Your task to perform on an android device: open app "Google Calendar" (install if not already installed) Image 0: 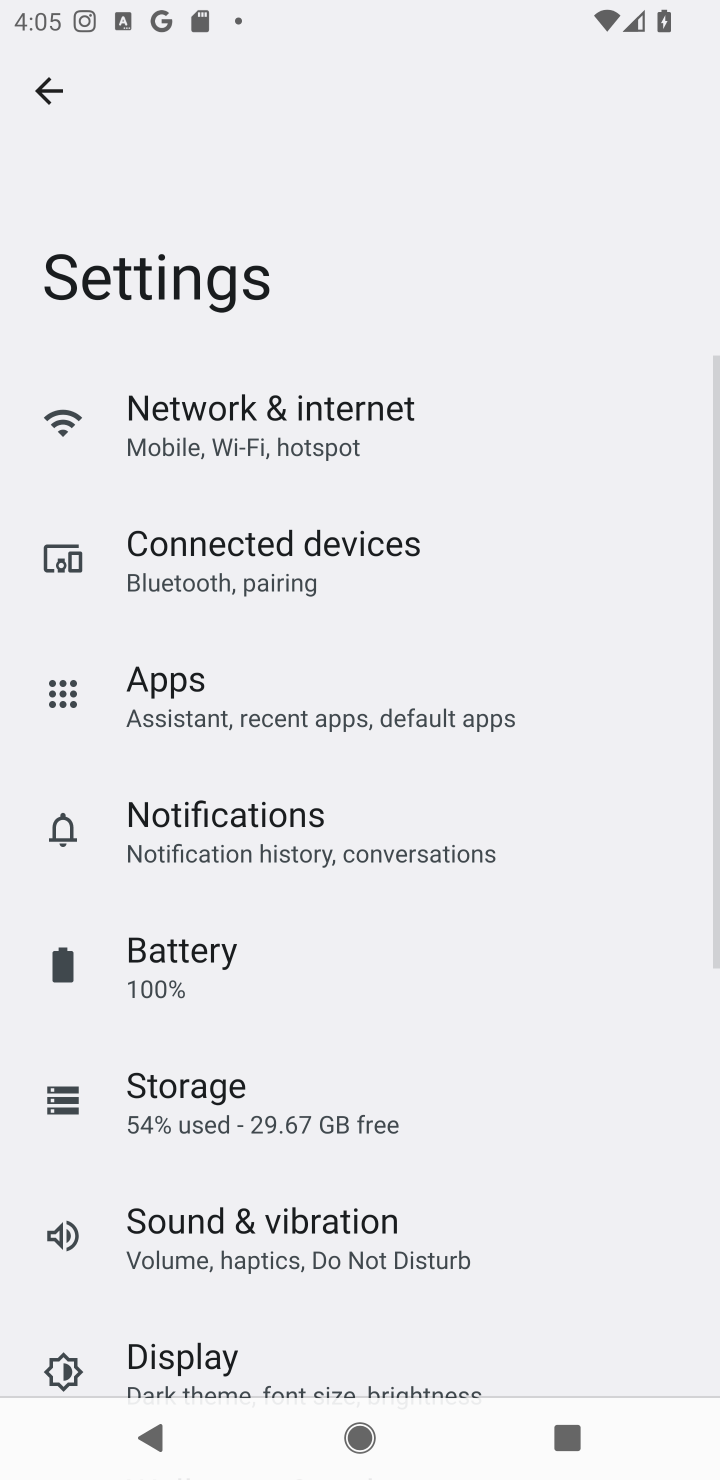
Step 0: press home button
Your task to perform on an android device: open app "Google Calendar" (install if not already installed) Image 1: 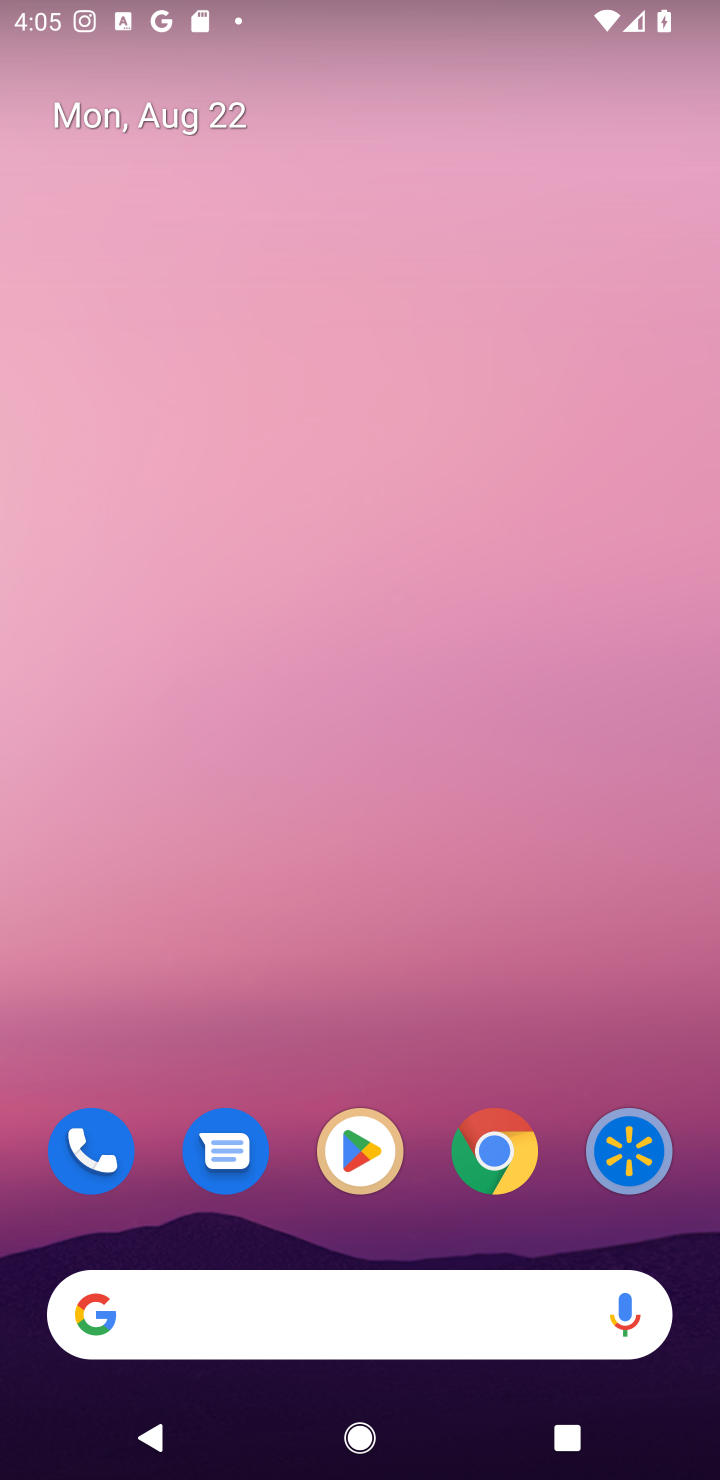
Step 1: click (355, 1152)
Your task to perform on an android device: open app "Google Calendar" (install if not already installed) Image 2: 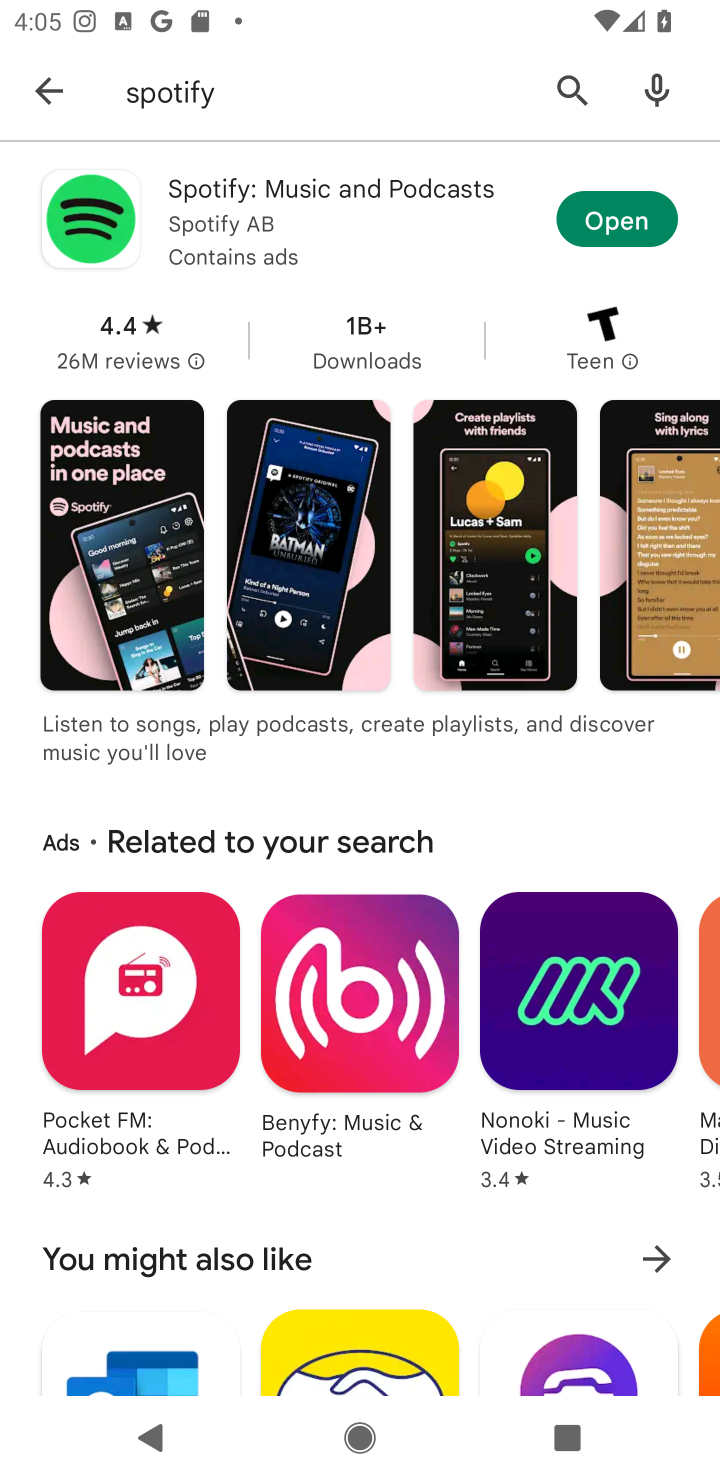
Step 2: click (562, 87)
Your task to perform on an android device: open app "Google Calendar" (install if not already installed) Image 3: 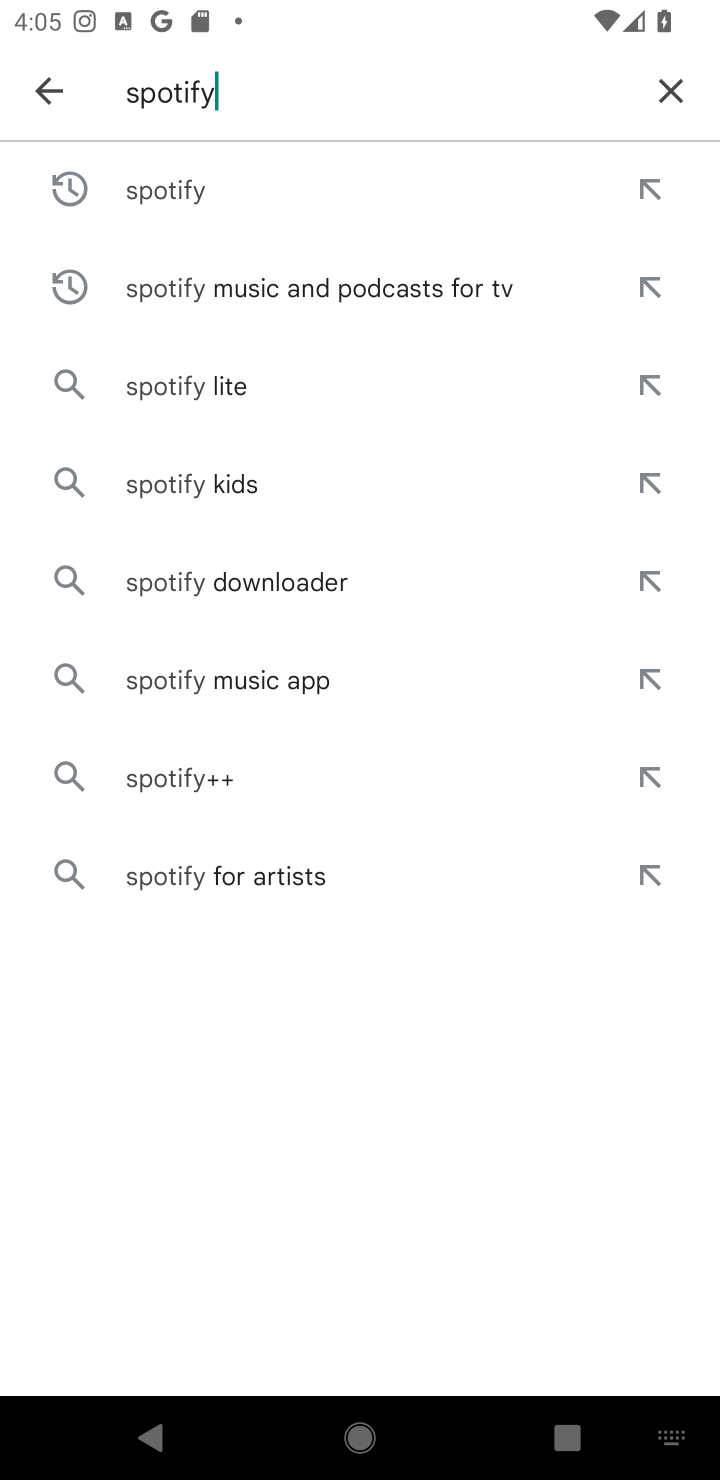
Step 3: click (667, 85)
Your task to perform on an android device: open app "Google Calendar" (install if not already installed) Image 4: 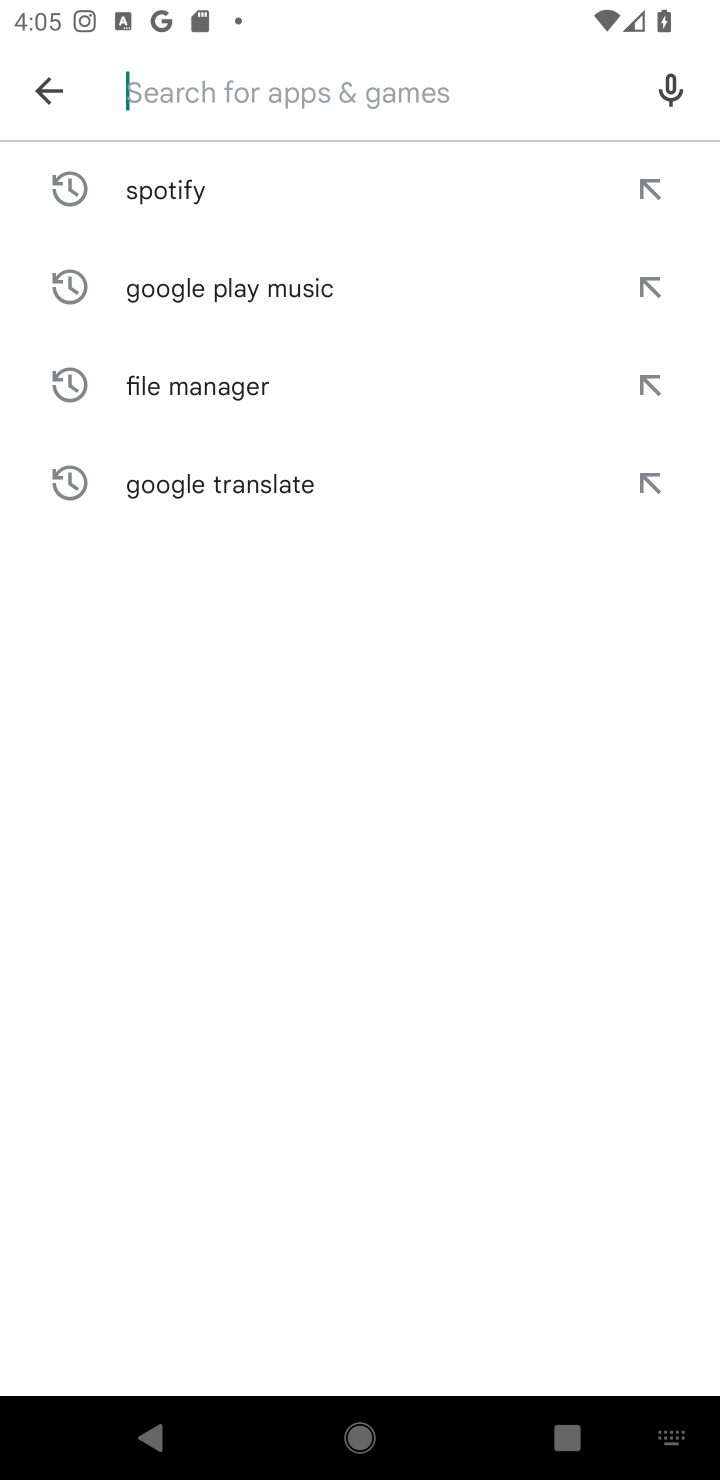
Step 4: type "Google Calendar"
Your task to perform on an android device: open app "Google Calendar" (install if not already installed) Image 5: 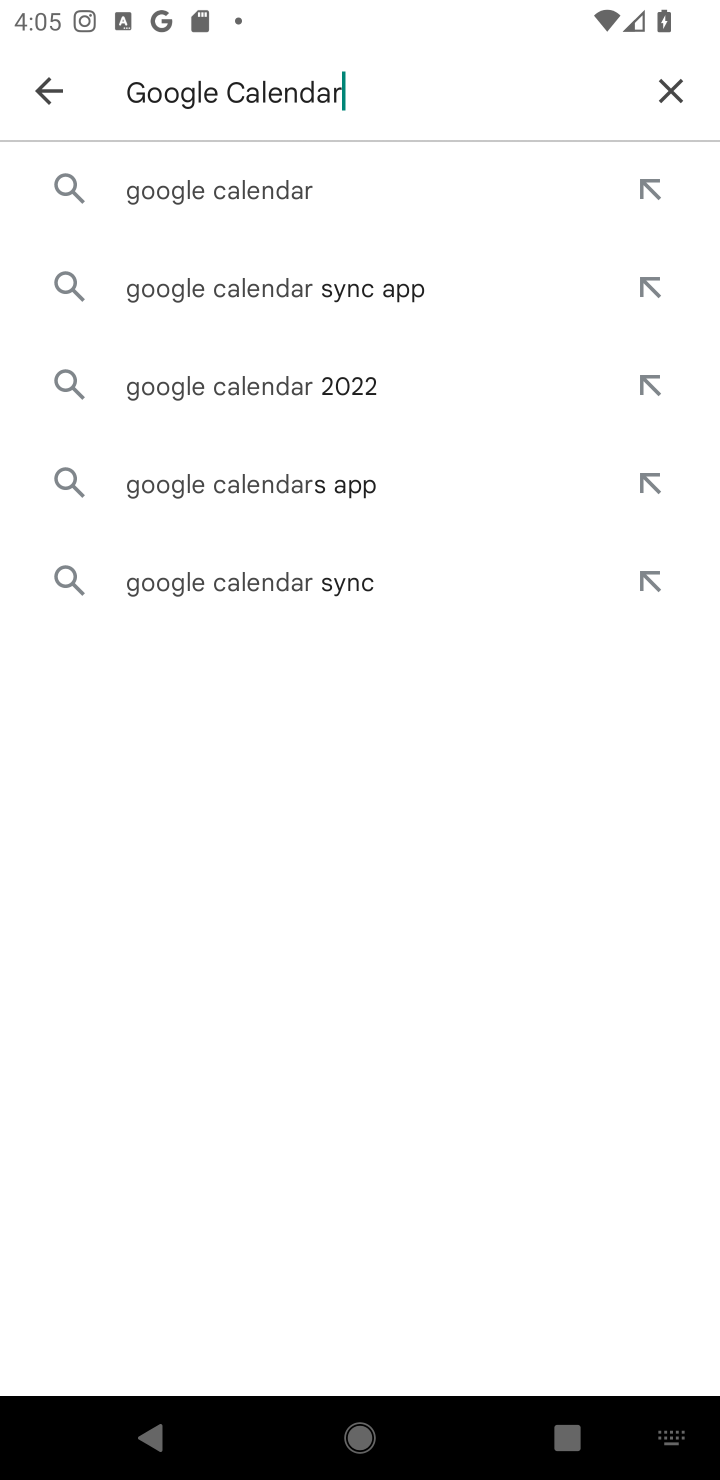
Step 5: click (300, 188)
Your task to perform on an android device: open app "Google Calendar" (install if not already installed) Image 6: 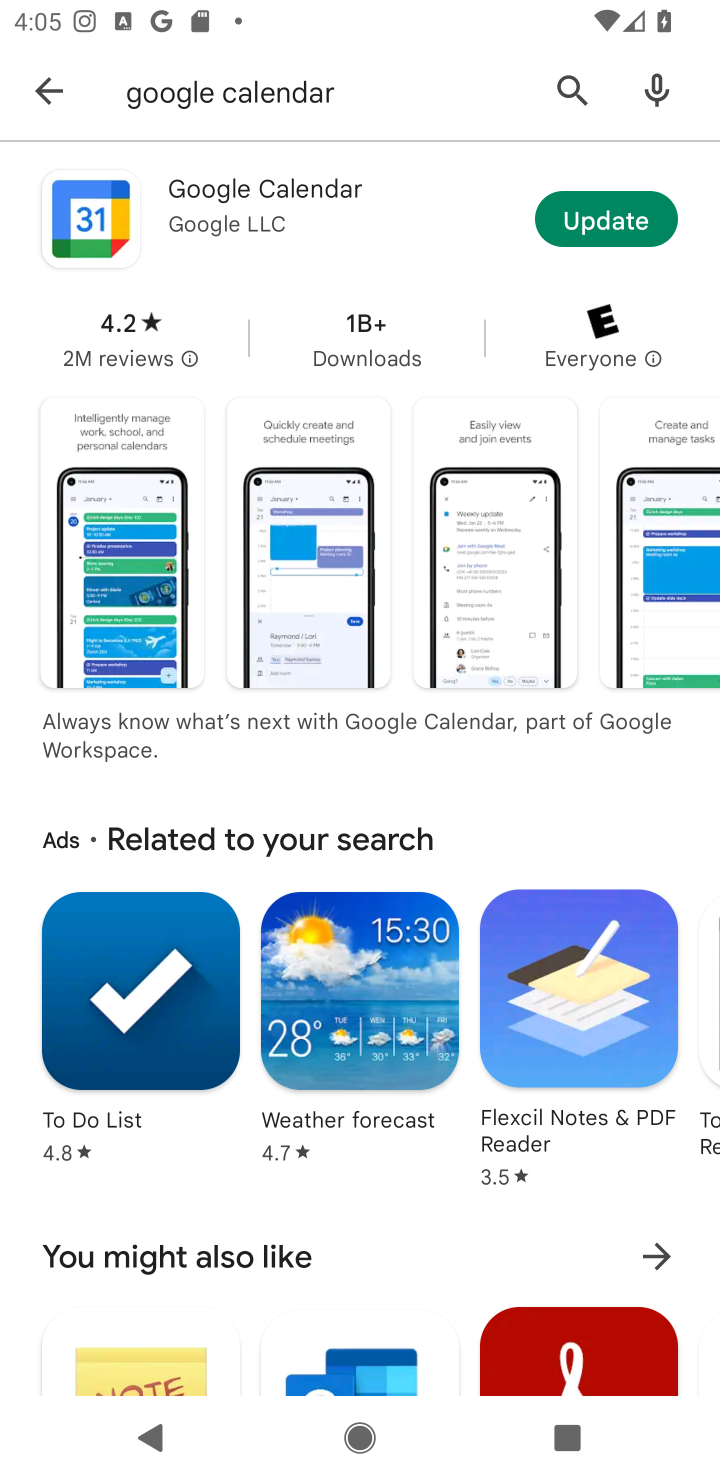
Step 6: click (254, 214)
Your task to perform on an android device: open app "Google Calendar" (install if not already installed) Image 7: 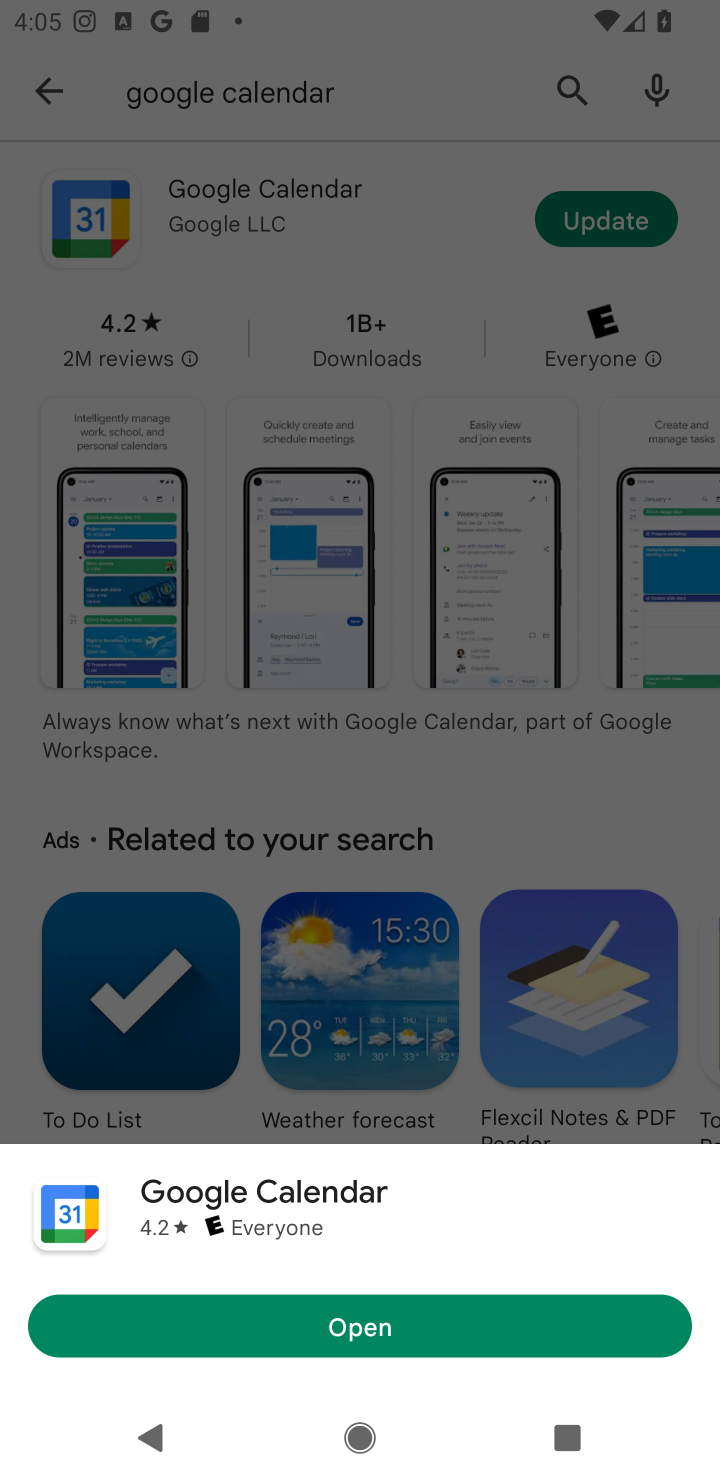
Step 7: click (399, 1343)
Your task to perform on an android device: open app "Google Calendar" (install if not already installed) Image 8: 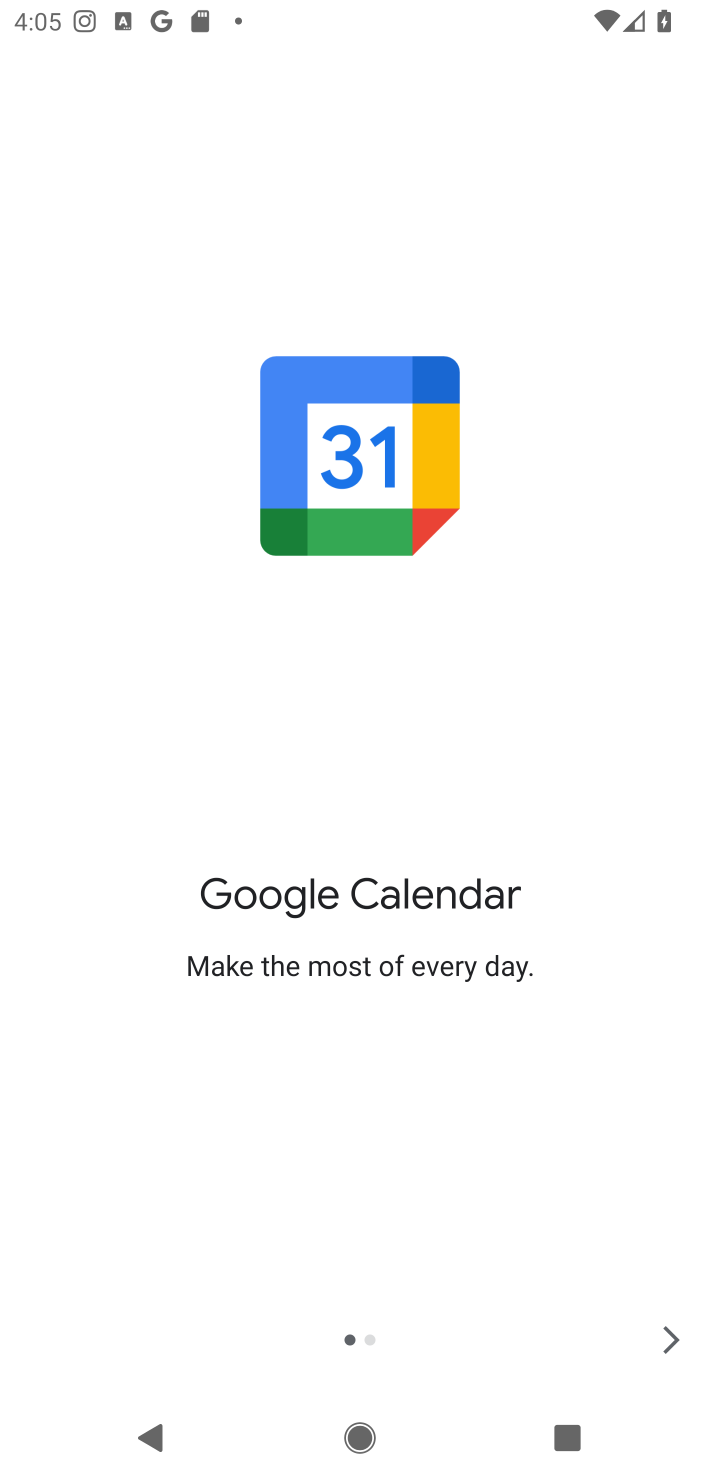
Step 8: click (667, 1332)
Your task to perform on an android device: open app "Google Calendar" (install if not already installed) Image 9: 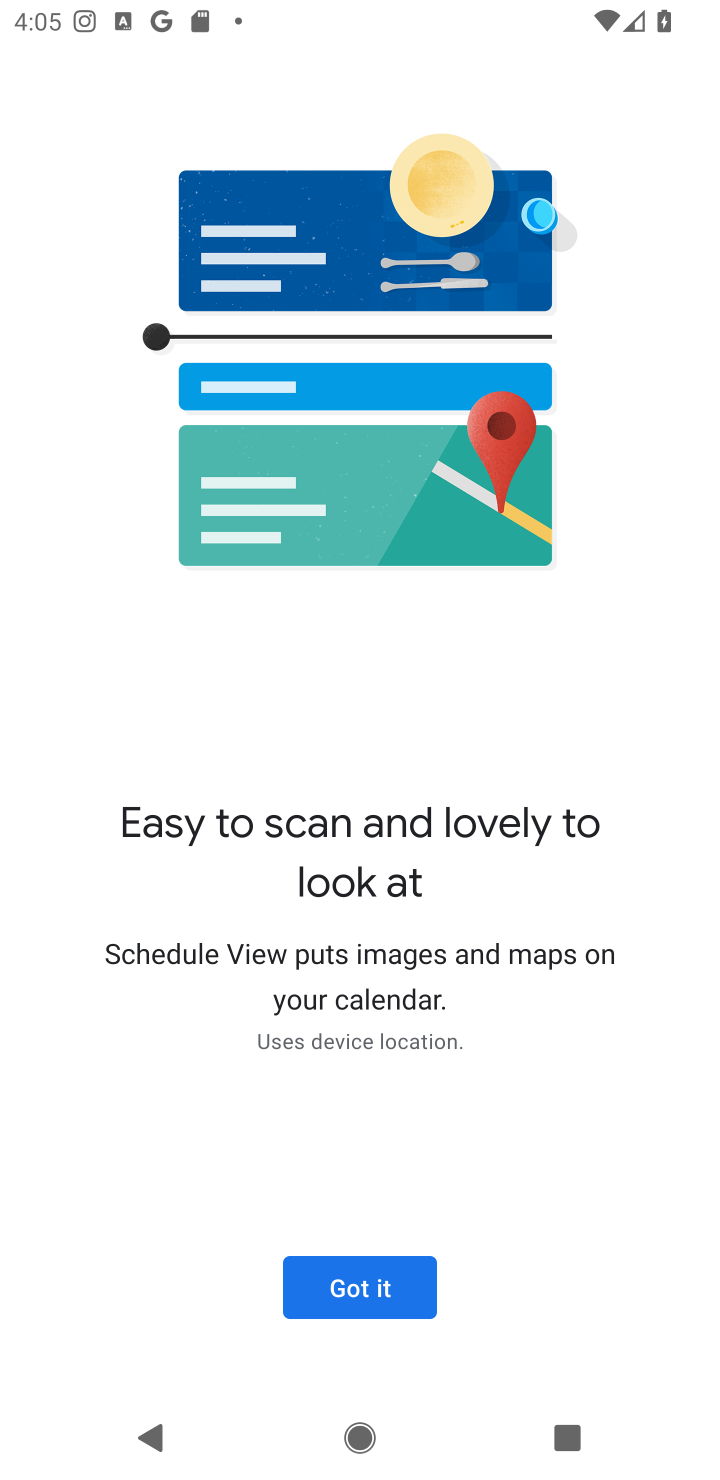
Step 9: click (667, 1332)
Your task to perform on an android device: open app "Google Calendar" (install if not already installed) Image 10: 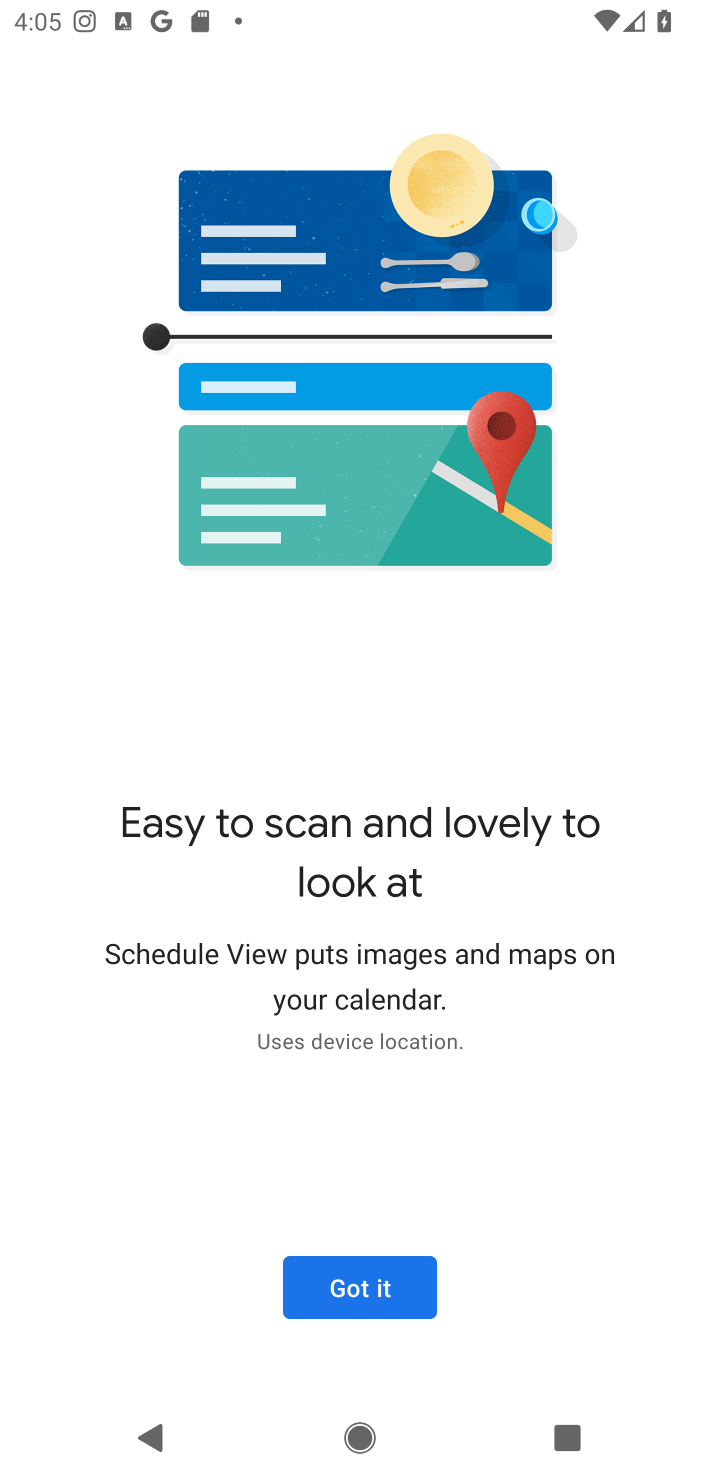
Step 10: click (410, 1285)
Your task to perform on an android device: open app "Google Calendar" (install if not already installed) Image 11: 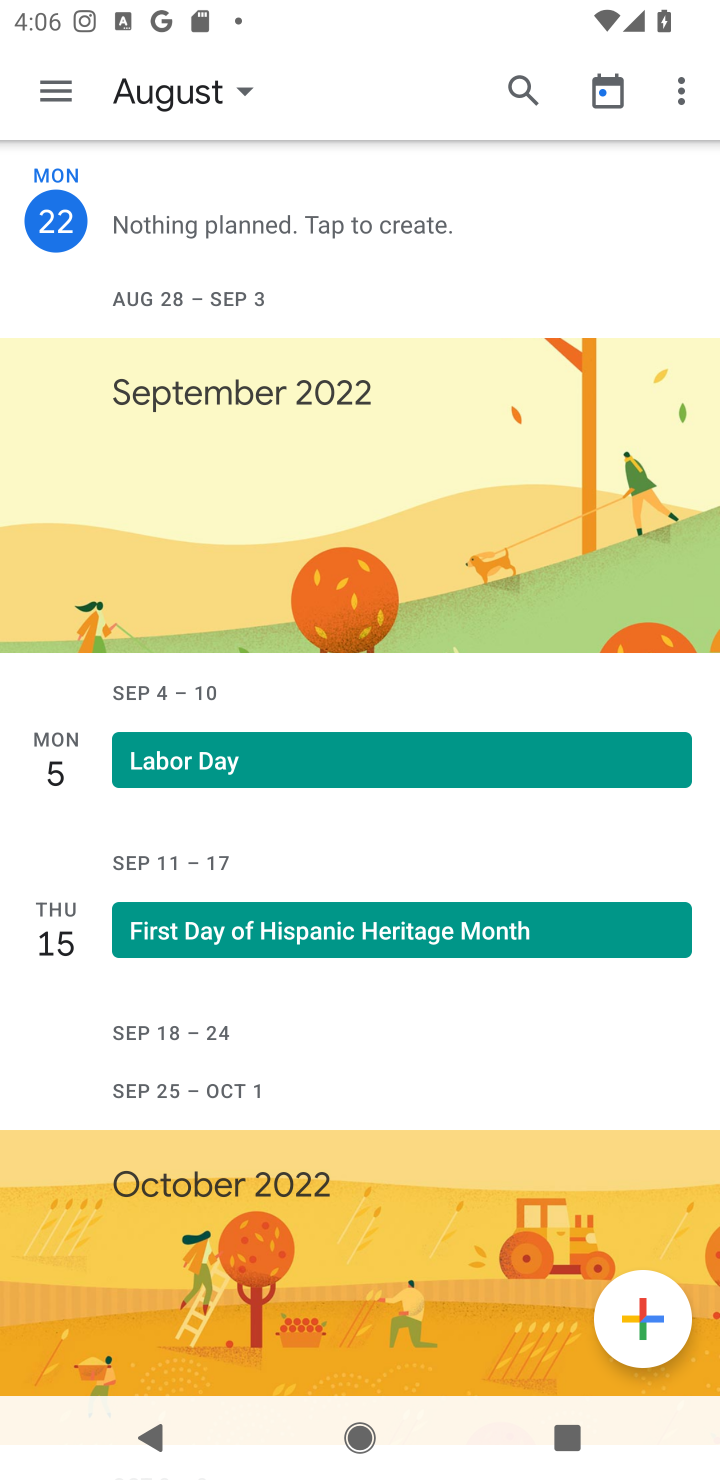
Step 11: task complete